Your task to perform on an android device: open app "HBO Max: Stream TV & Movies" (install if not already installed) and go to login screen Image 0: 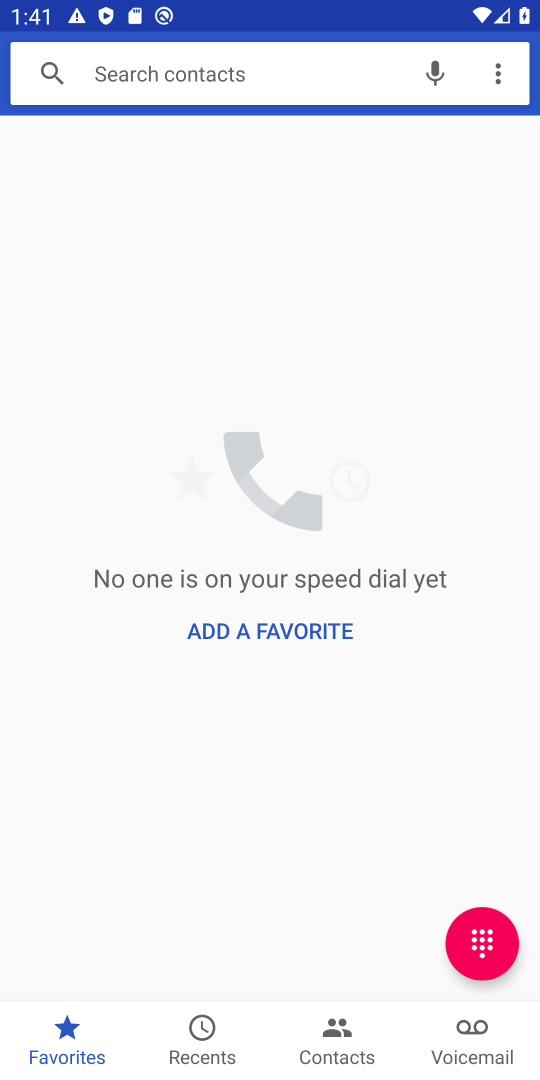
Step 0: task impossible